Your task to perform on an android device: Do I have any events today? Image 0: 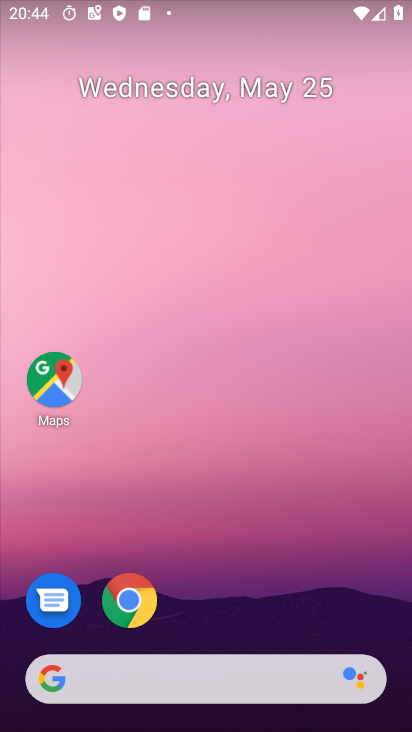
Step 0: drag from (352, 629) to (332, 220)
Your task to perform on an android device: Do I have any events today? Image 1: 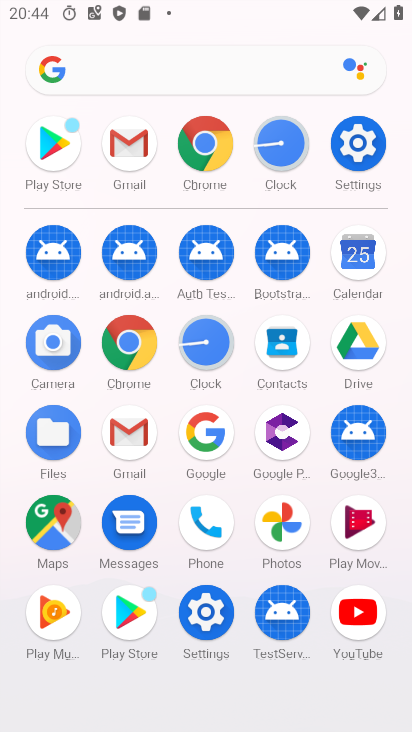
Step 1: click (356, 262)
Your task to perform on an android device: Do I have any events today? Image 2: 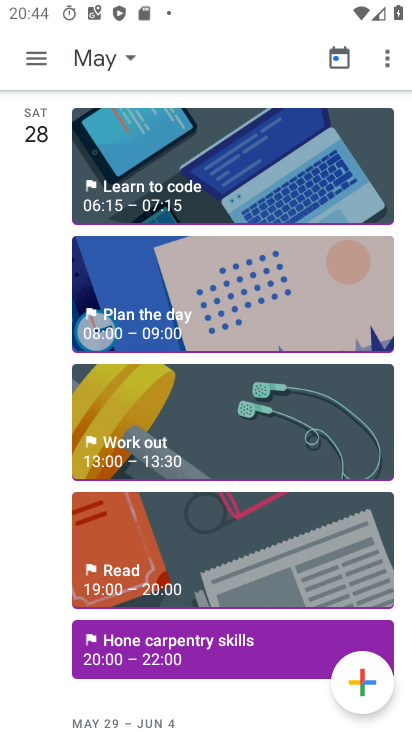
Step 2: click (82, 60)
Your task to perform on an android device: Do I have any events today? Image 3: 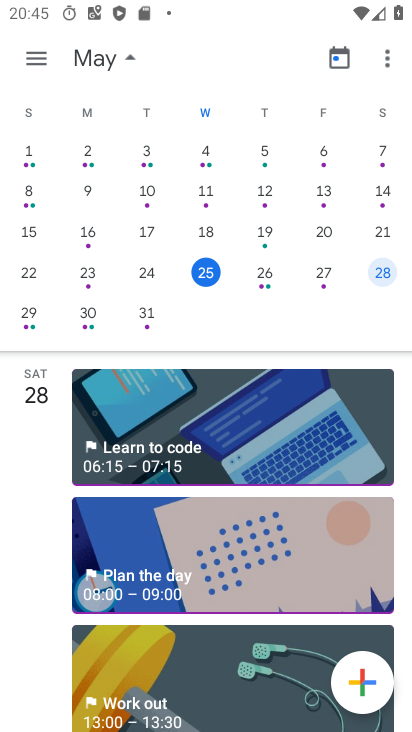
Step 3: click (203, 276)
Your task to perform on an android device: Do I have any events today? Image 4: 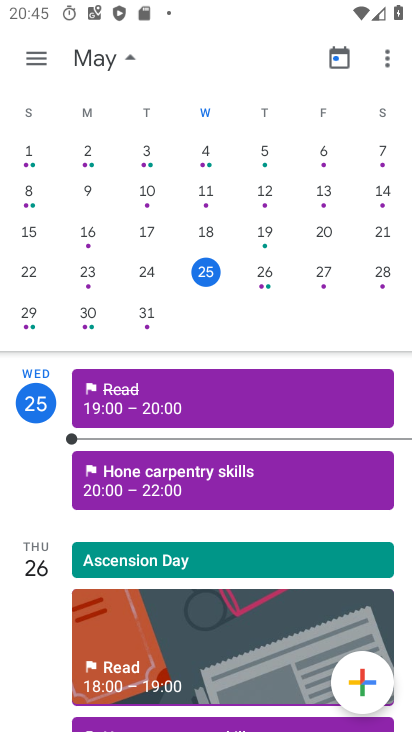
Step 4: task complete